Your task to perform on an android device: turn off airplane mode Image 0: 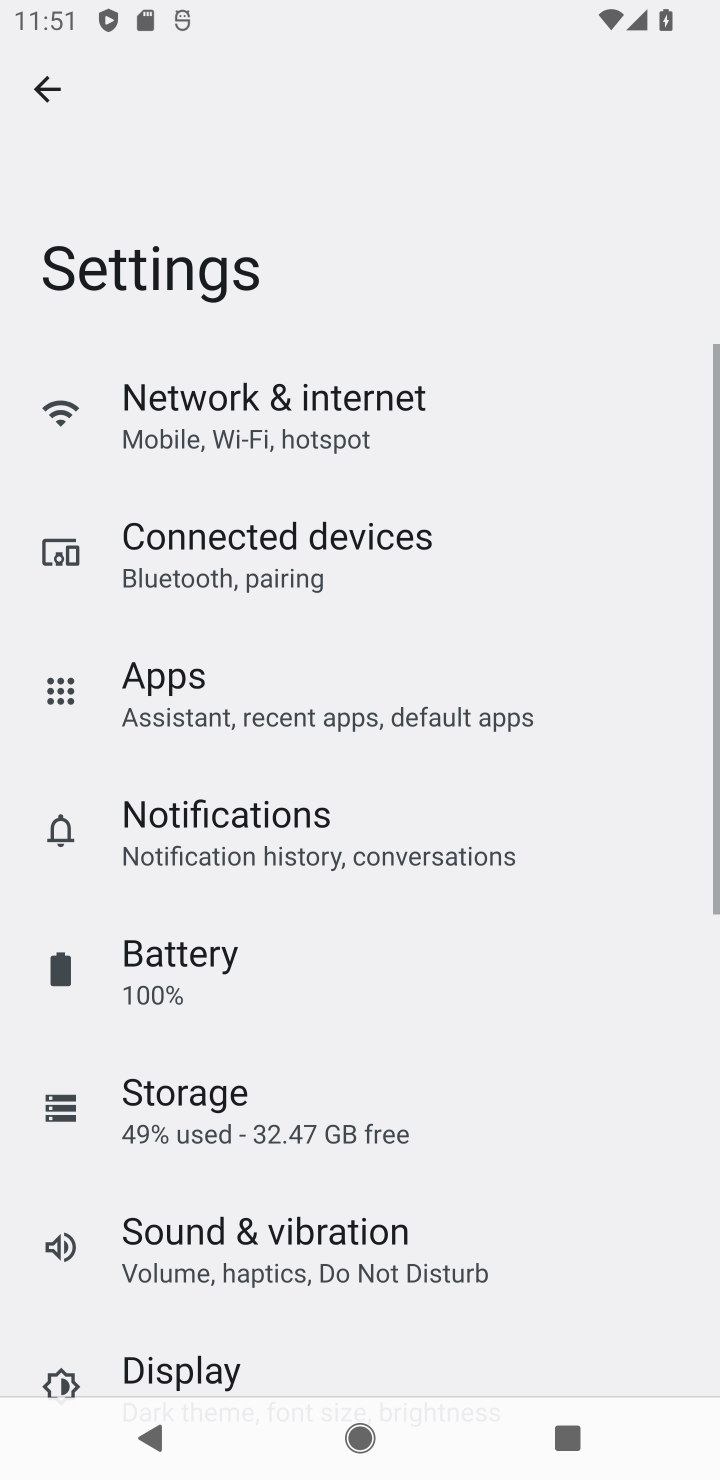
Step 0: press home button
Your task to perform on an android device: turn off airplane mode Image 1: 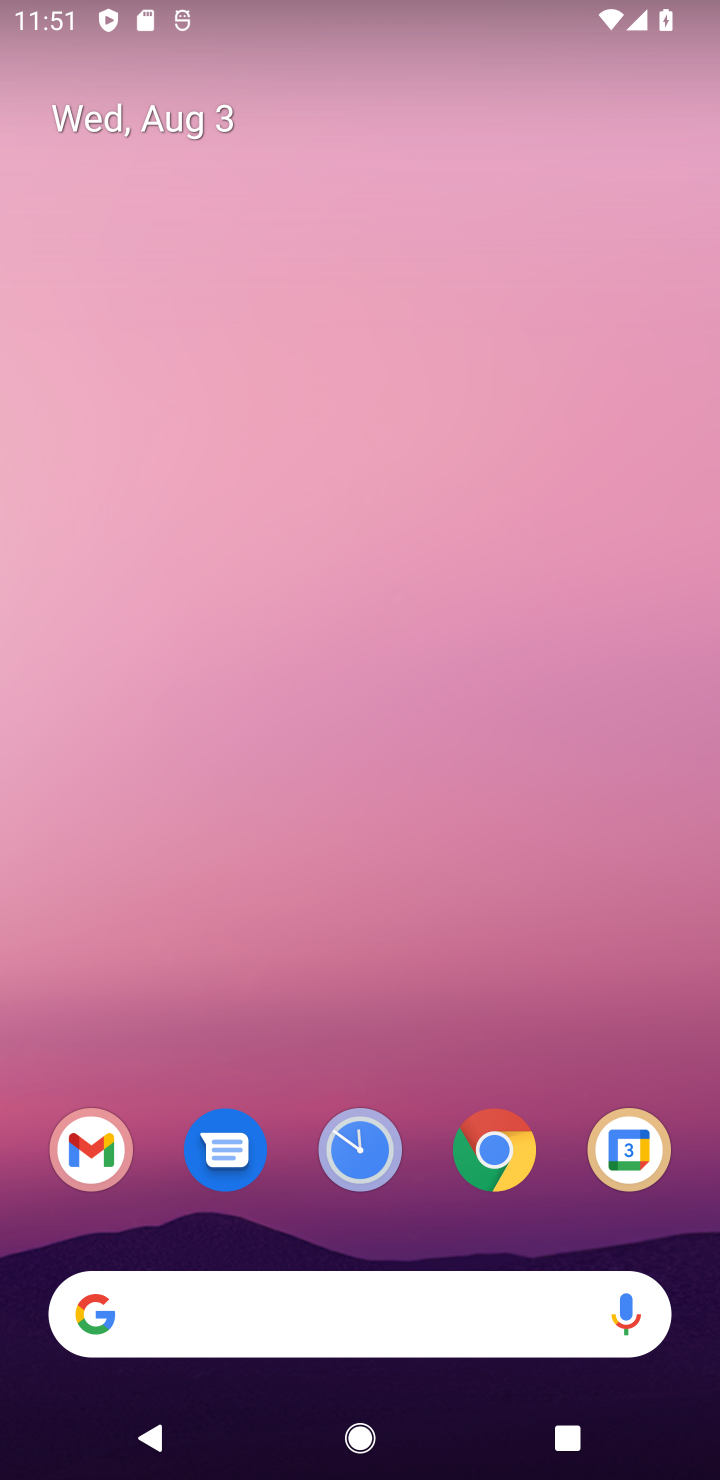
Step 1: drag from (547, 1073) to (592, 469)
Your task to perform on an android device: turn off airplane mode Image 2: 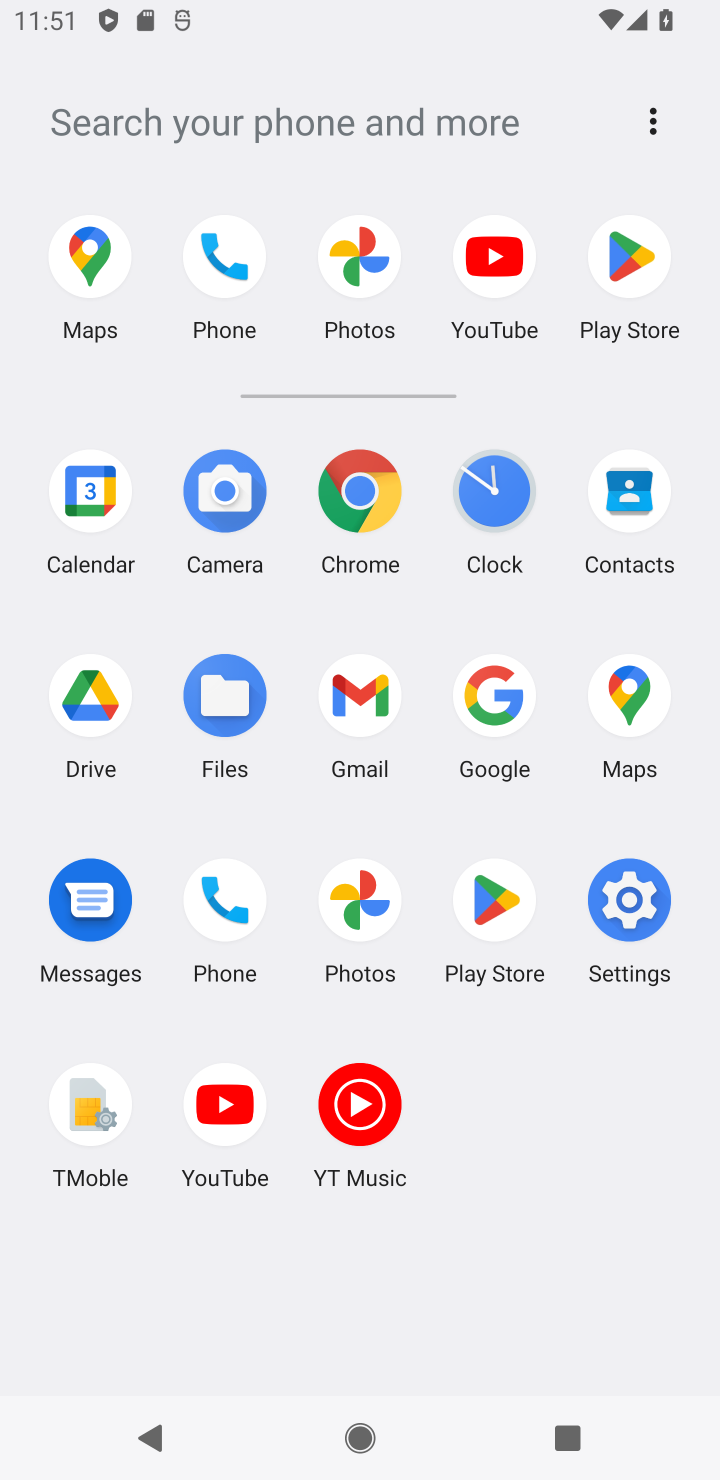
Step 2: click (627, 906)
Your task to perform on an android device: turn off airplane mode Image 3: 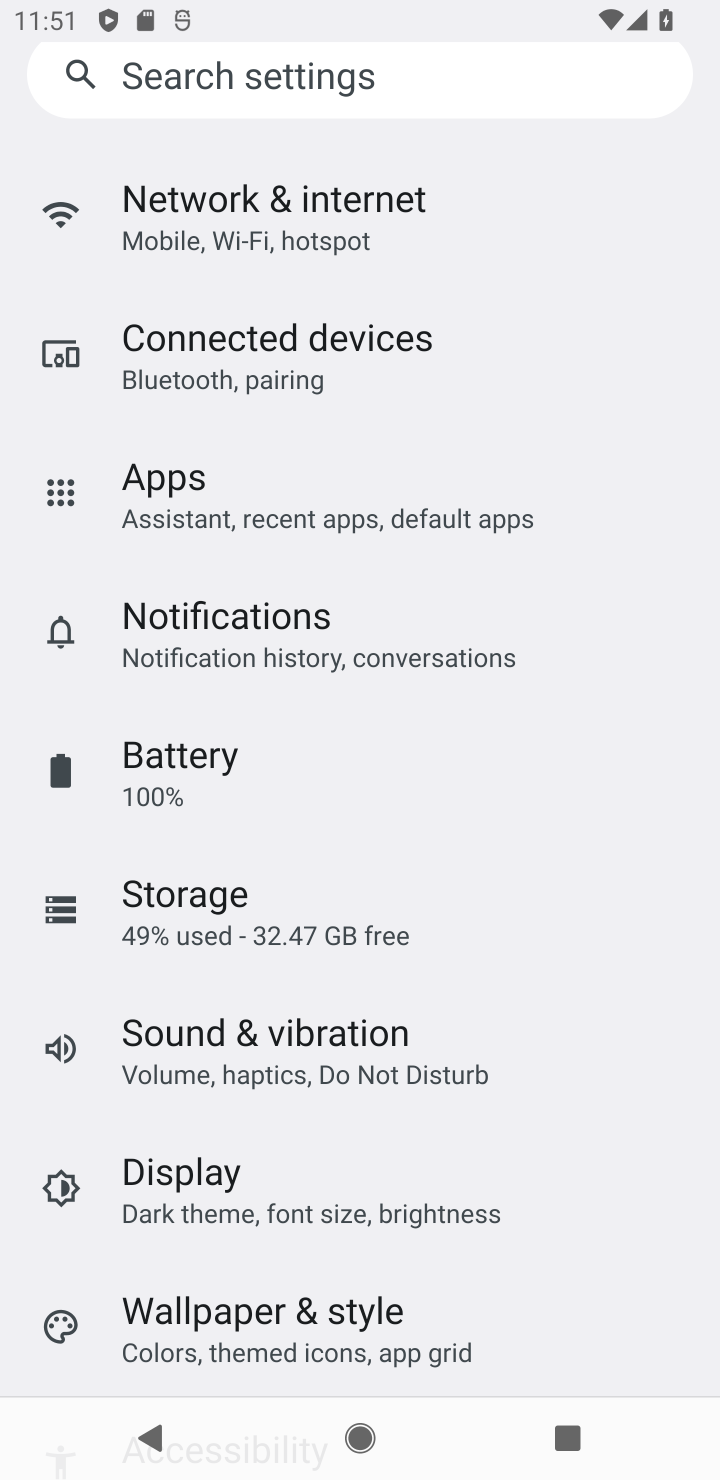
Step 3: drag from (570, 1174) to (585, 901)
Your task to perform on an android device: turn off airplane mode Image 4: 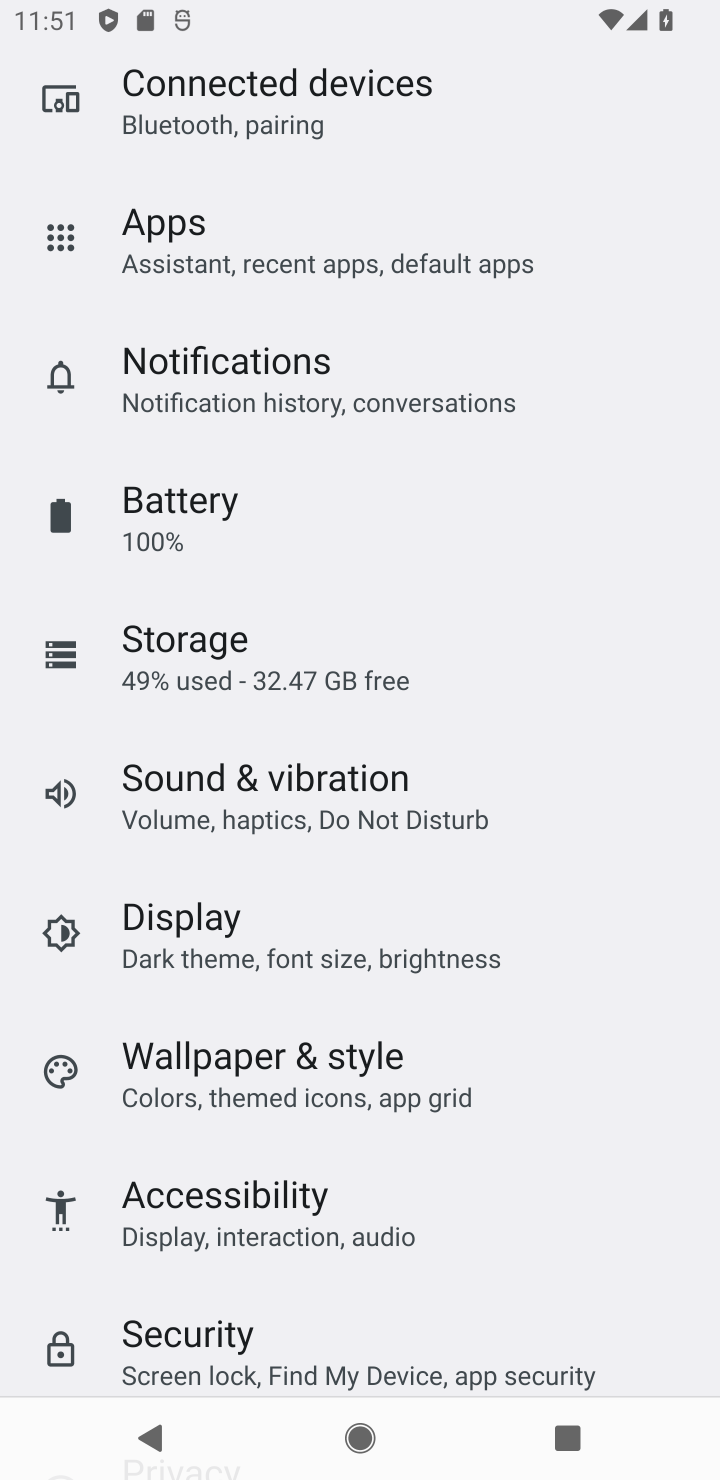
Step 4: drag from (546, 1210) to (563, 868)
Your task to perform on an android device: turn off airplane mode Image 5: 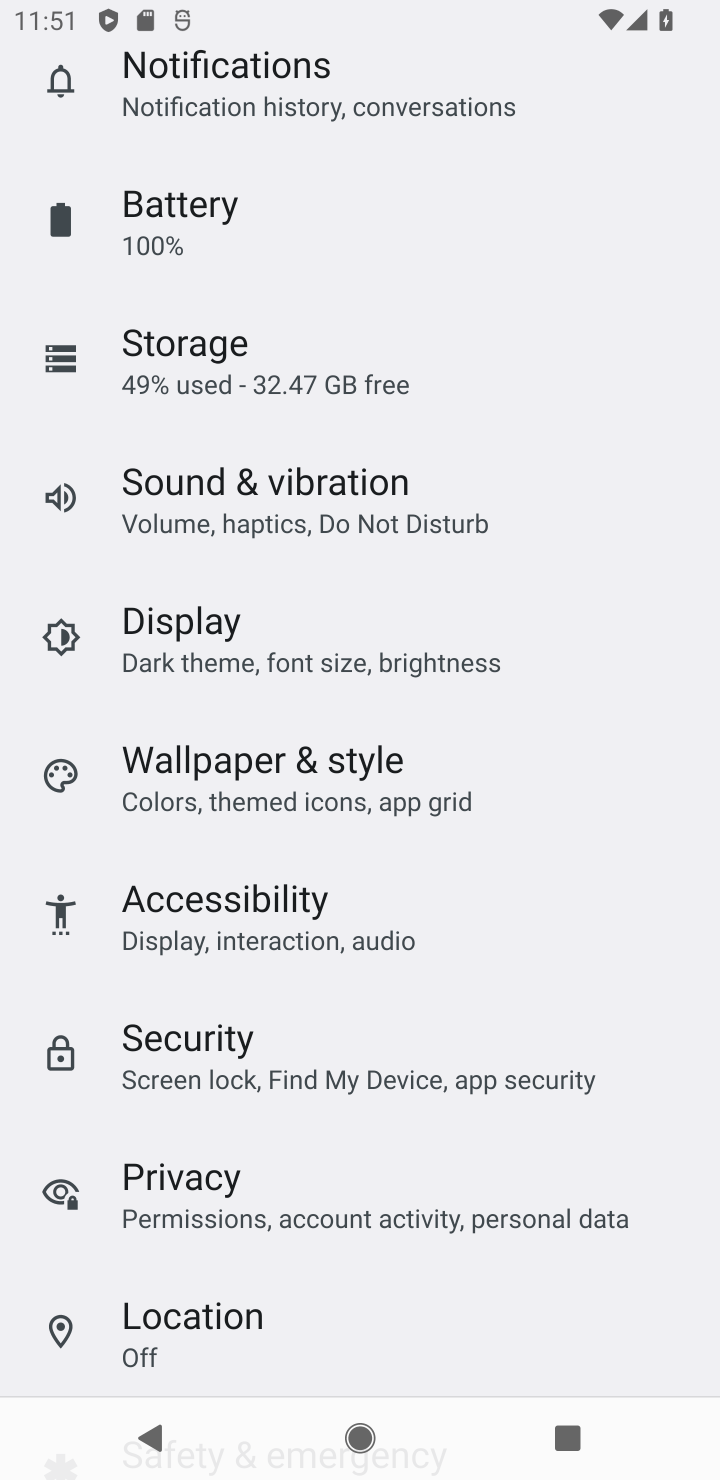
Step 5: drag from (632, 1274) to (625, 911)
Your task to perform on an android device: turn off airplane mode Image 6: 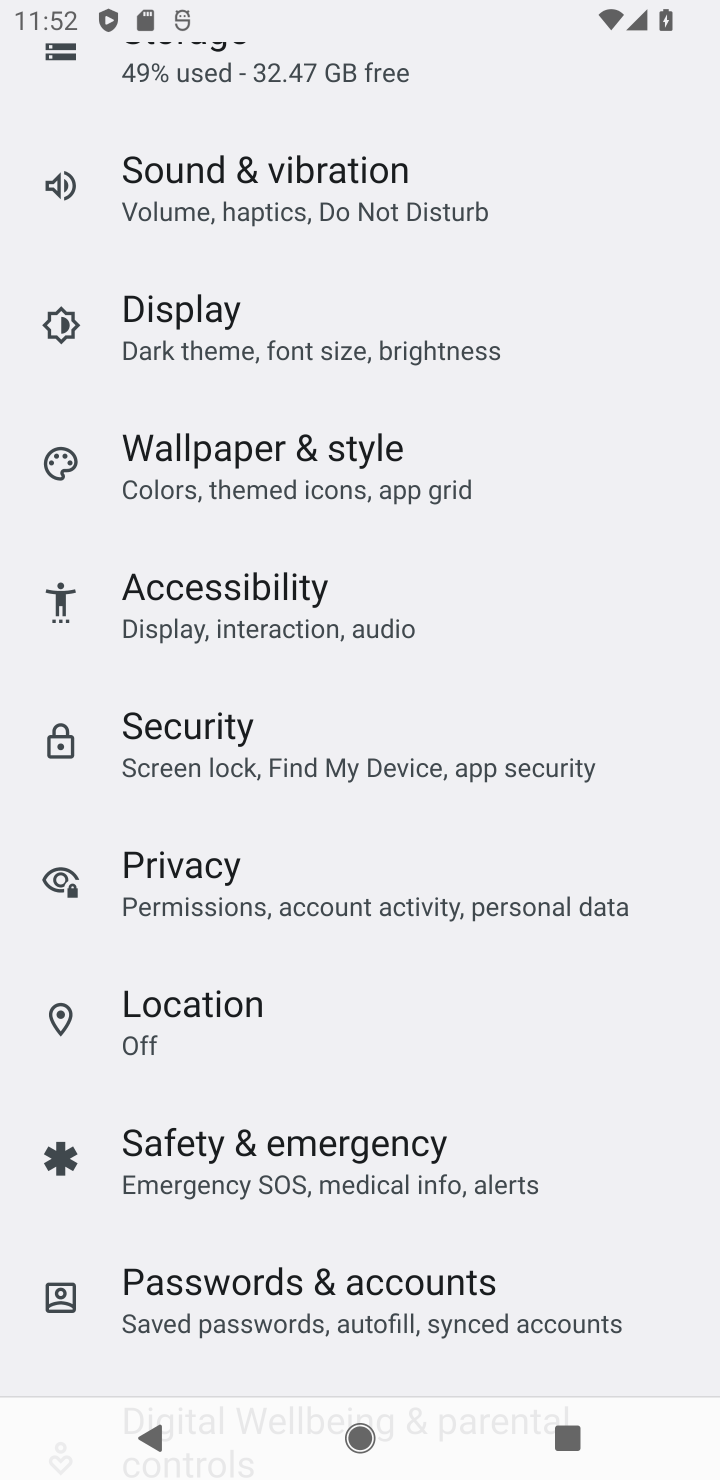
Step 6: drag from (537, 1164) to (530, 798)
Your task to perform on an android device: turn off airplane mode Image 7: 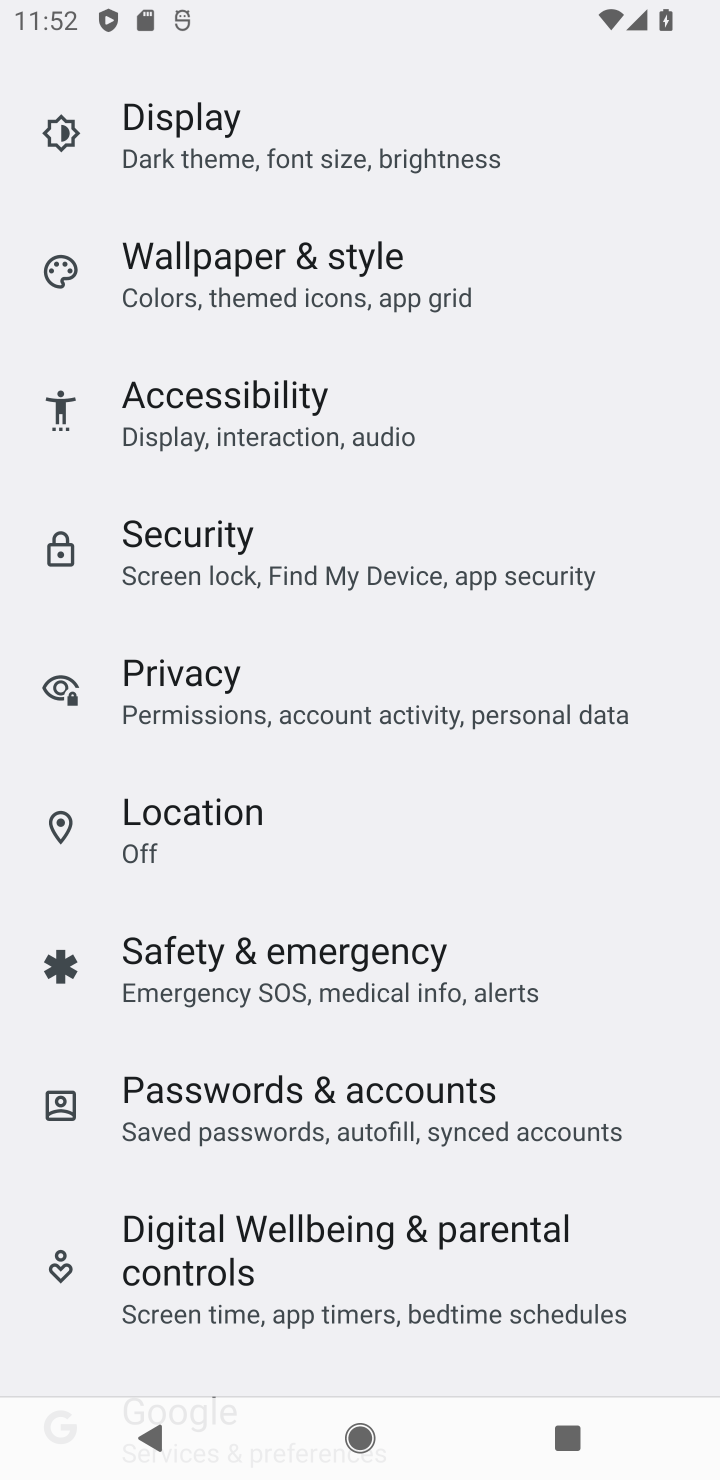
Step 7: drag from (614, 509) to (610, 905)
Your task to perform on an android device: turn off airplane mode Image 8: 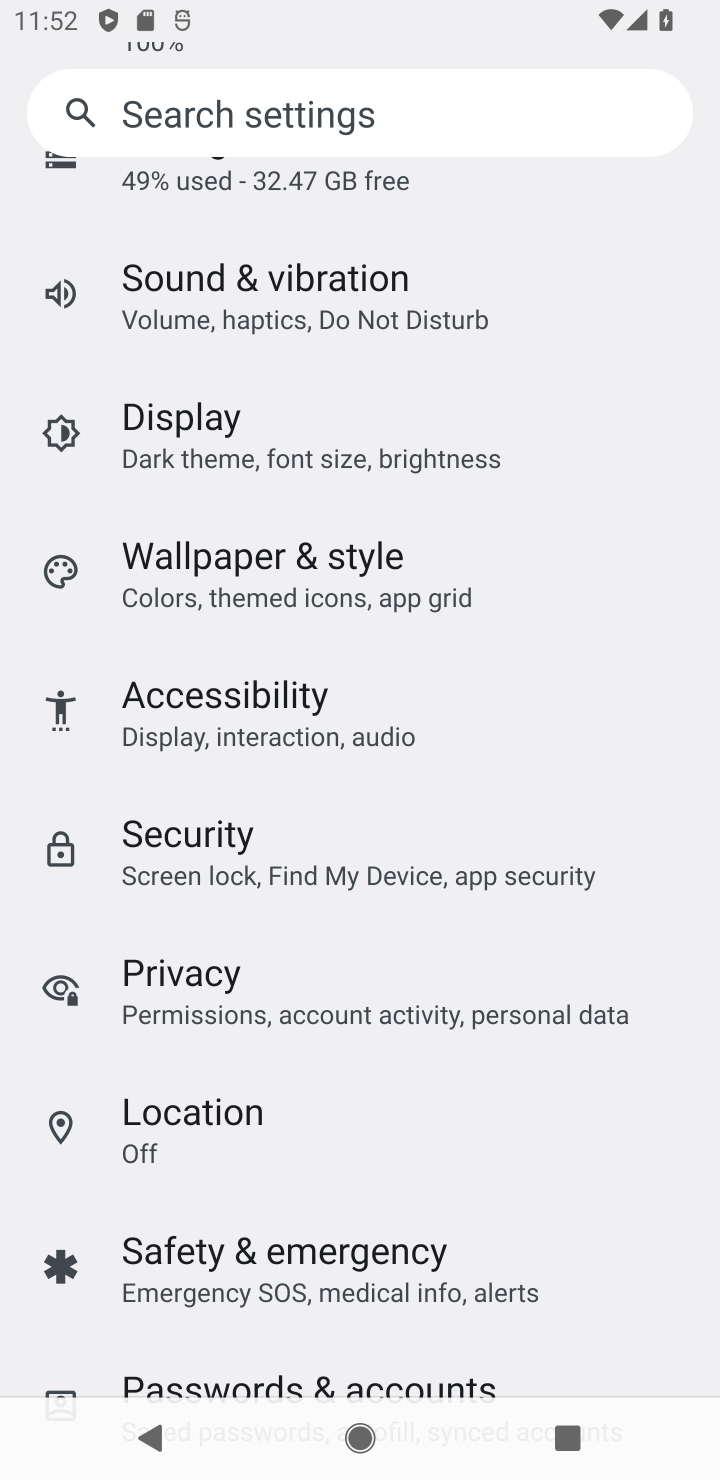
Step 8: drag from (582, 467) to (547, 796)
Your task to perform on an android device: turn off airplane mode Image 9: 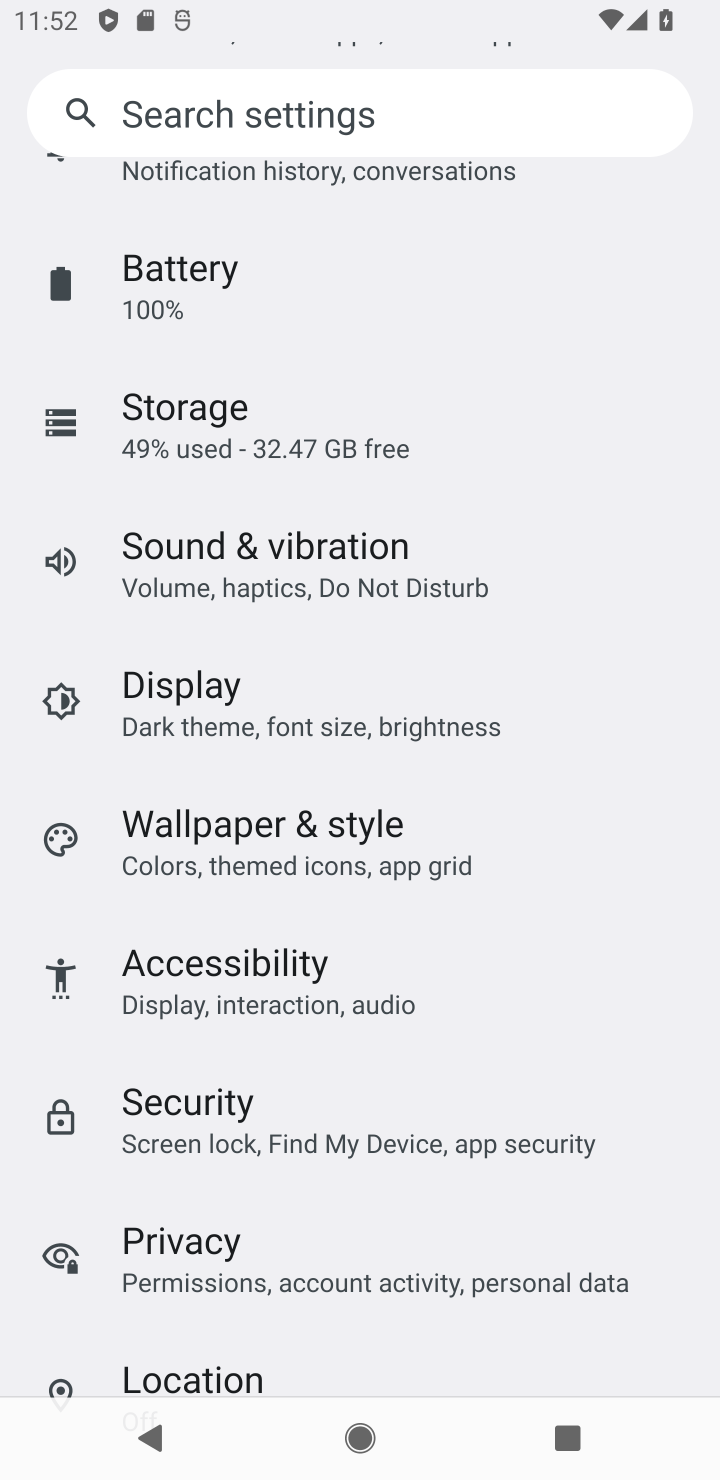
Step 9: drag from (545, 373) to (545, 748)
Your task to perform on an android device: turn off airplane mode Image 10: 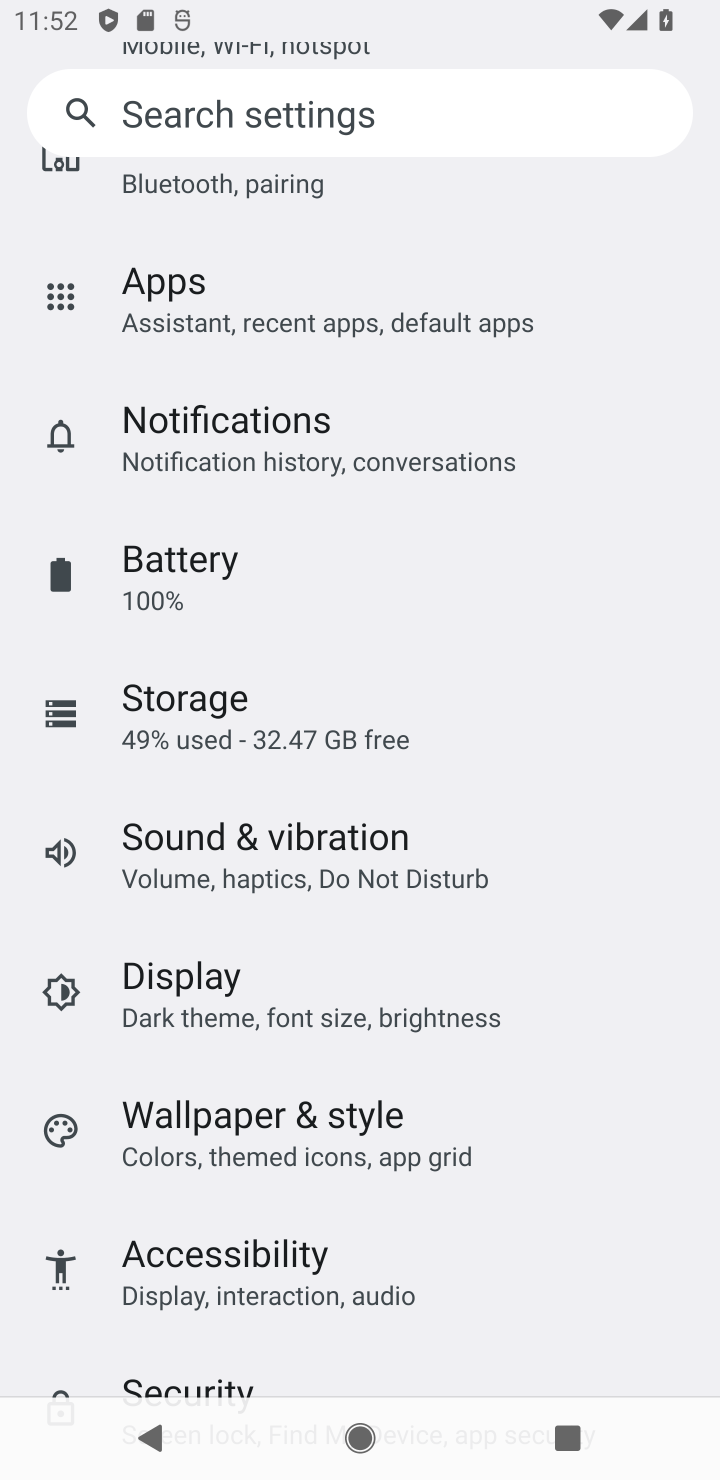
Step 10: drag from (596, 305) to (596, 674)
Your task to perform on an android device: turn off airplane mode Image 11: 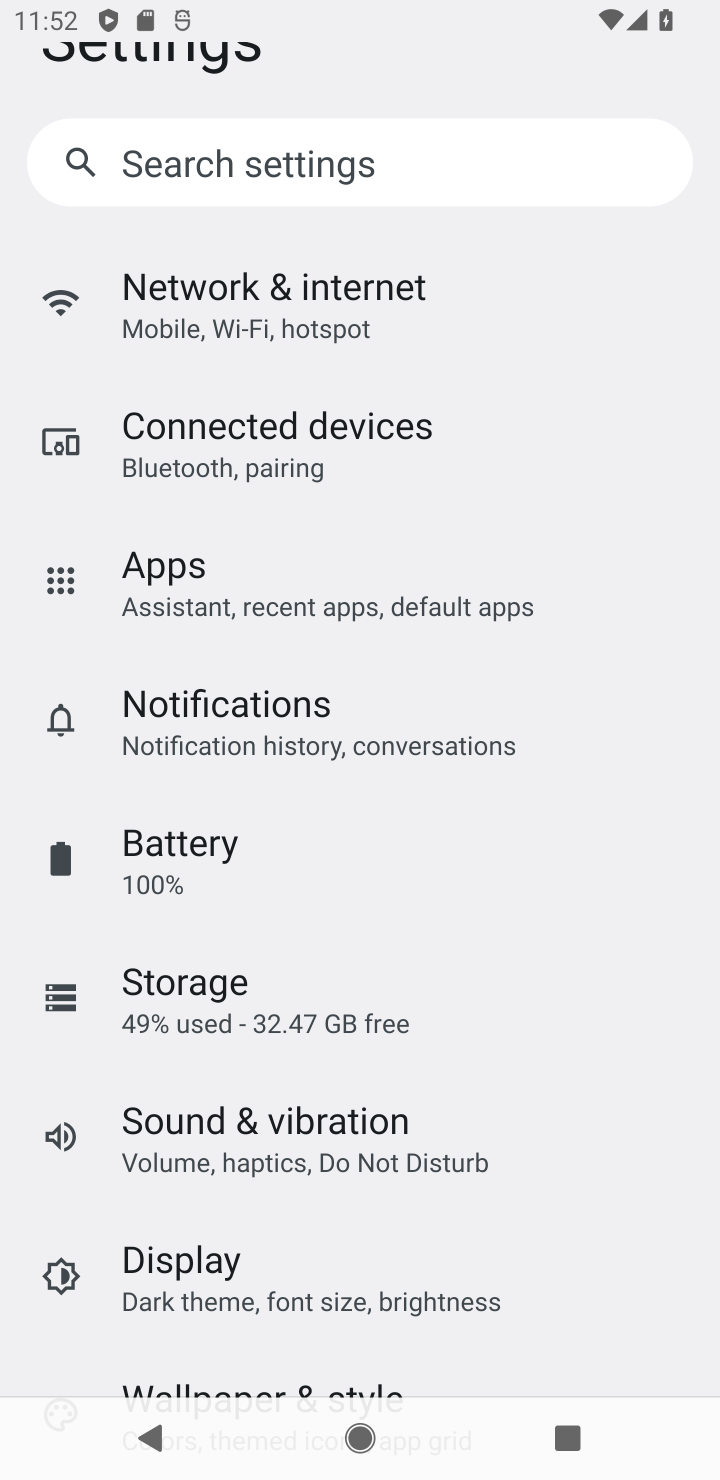
Step 11: click (418, 302)
Your task to perform on an android device: turn off airplane mode Image 12: 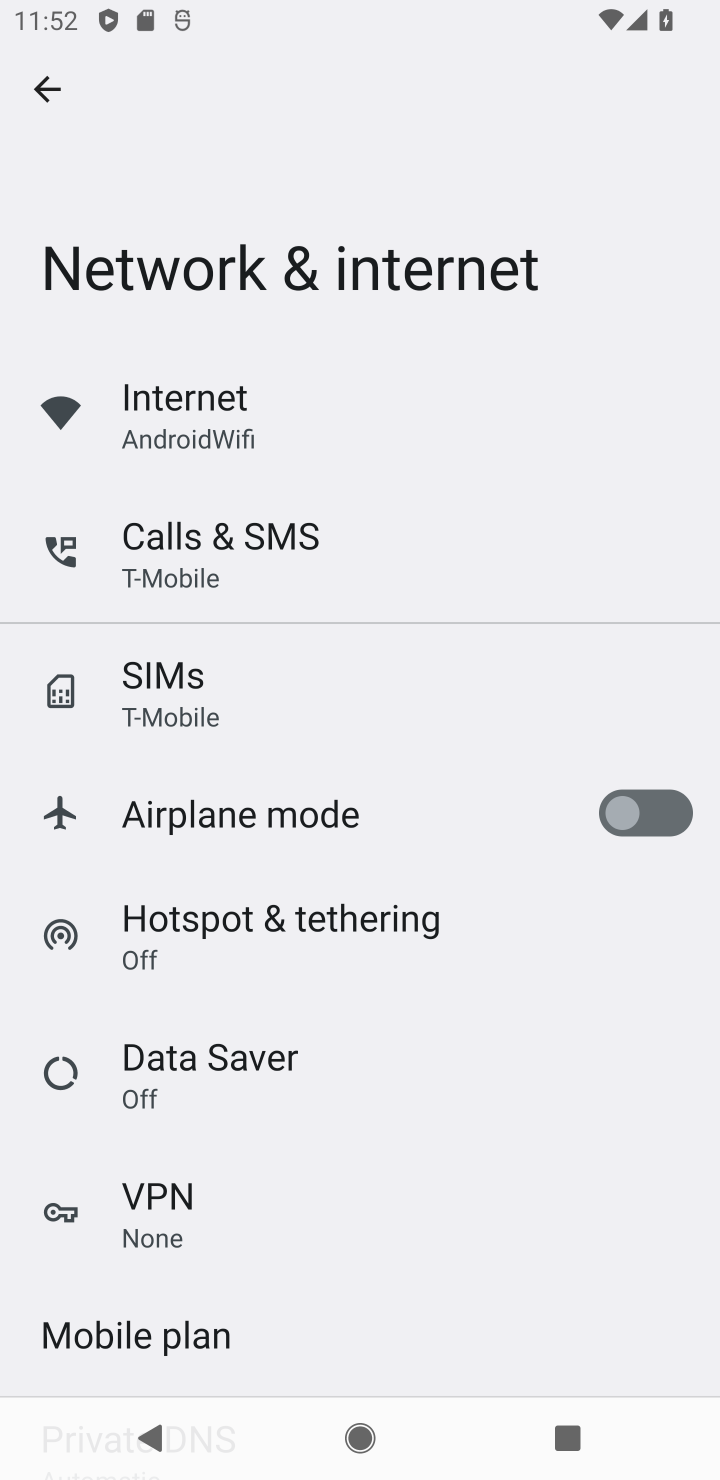
Step 12: task complete